Your task to perform on an android device: Go to battery settings Image 0: 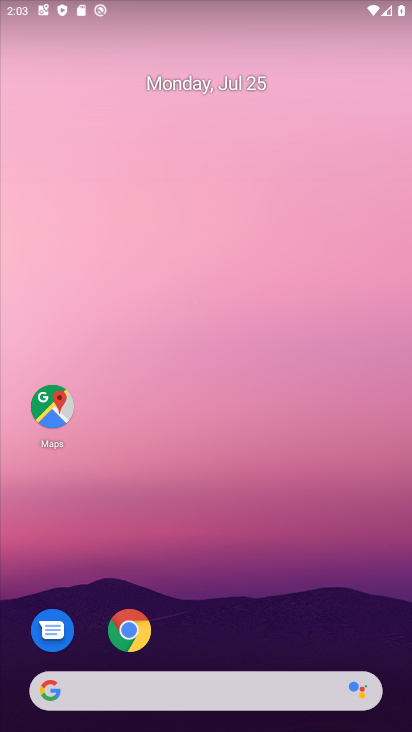
Step 0: drag from (295, 638) to (326, 159)
Your task to perform on an android device: Go to battery settings Image 1: 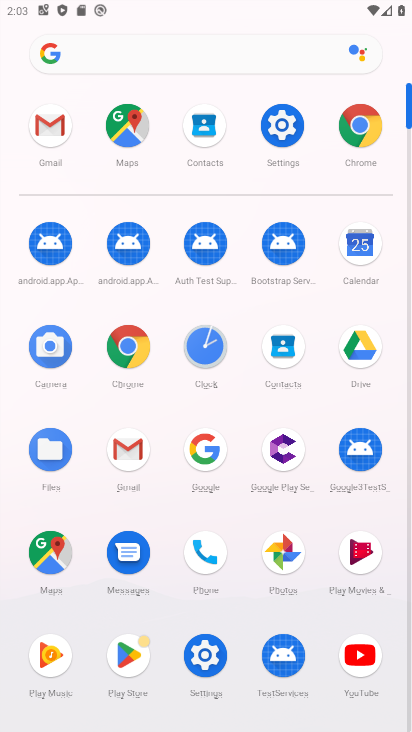
Step 1: click (269, 155)
Your task to perform on an android device: Go to battery settings Image 2: 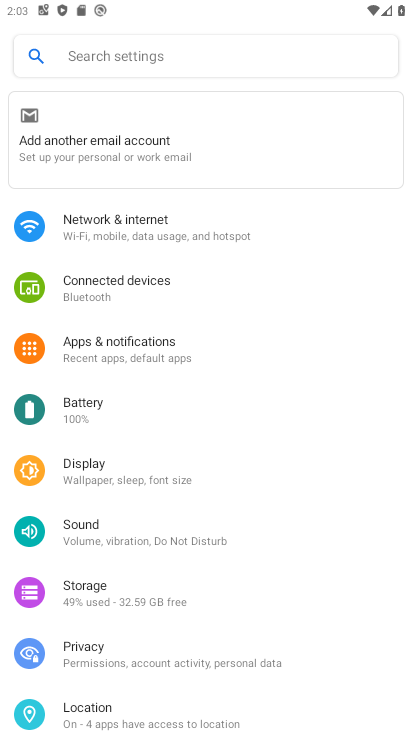
Step 2: click (188, 418)
Your task to perform on an android device: Go to battery settings Image 3: 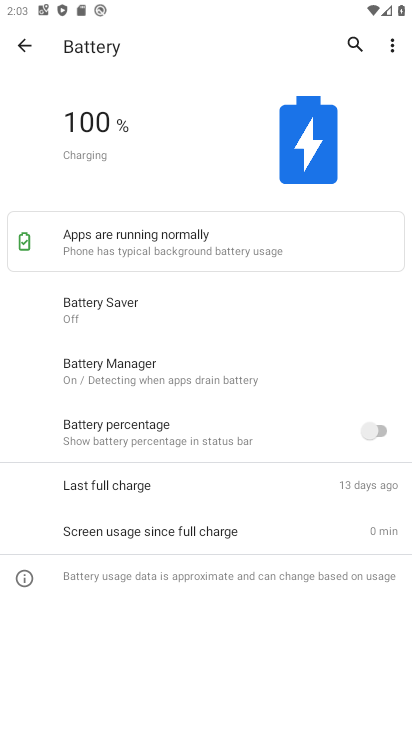
Step 3: task complete